Your task to perform on an android device: check out phone information Image 0: 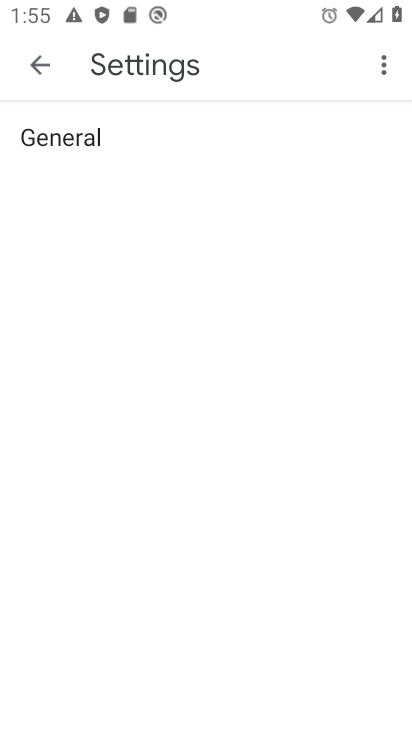
Step 0: press home button
Your task to perform on an android device: check out phone information Image 1: 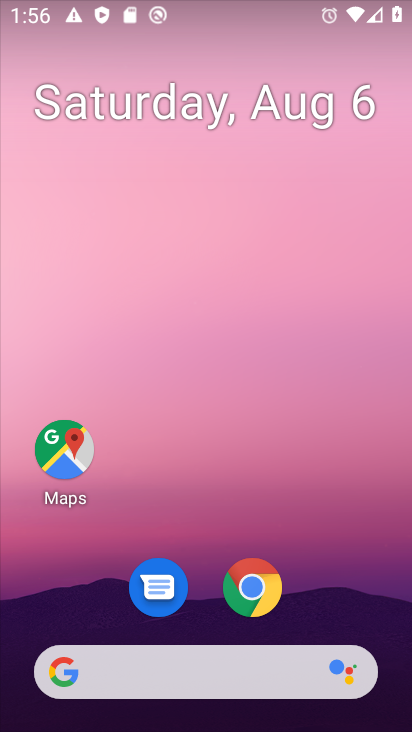
Step 1: drag from (208, 547) to (224, 184)
Your task to perform on an android device: check out phone information Image 2: 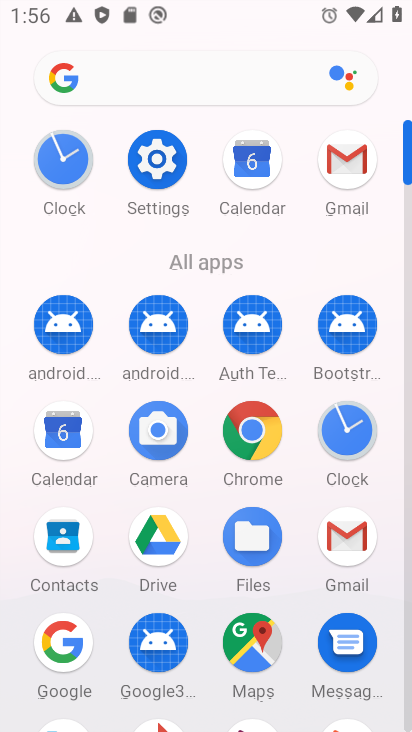
Step 2: click (184, 172)
Your task to perform on an android device: check out phone information Image 3: 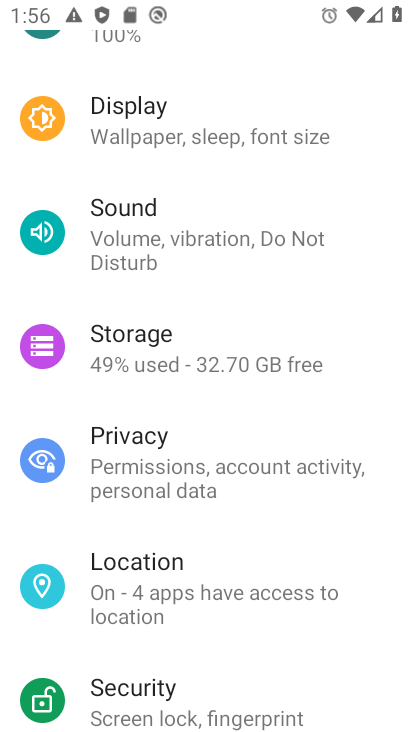
Step 3: drag from (247, 638) to (251, 159)
Your task to perform on an android device: check out phone information Image 4: 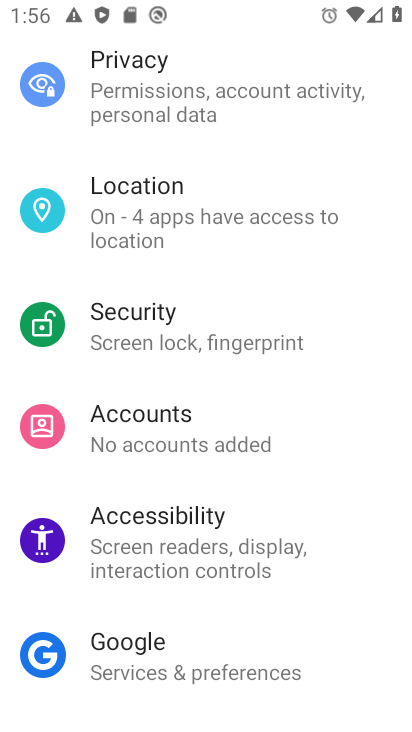
Step 4: drag from (264, 593) to (275, 224)
Your task to perform on an android device: check out phone information Image 5: 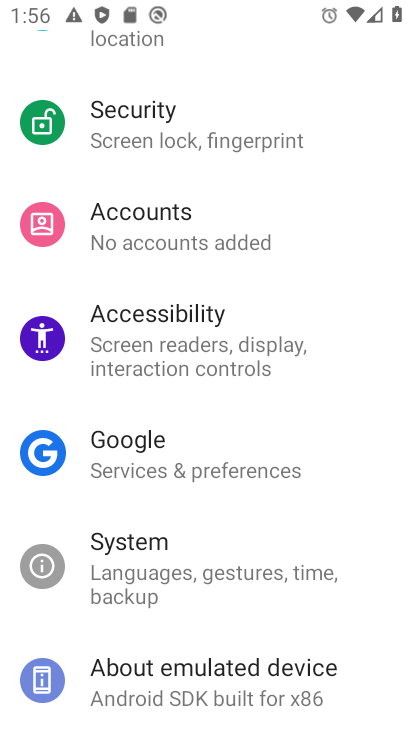
Step 5: click (231, 673)
Your task to perform on an android device: check out phone information Image 6: 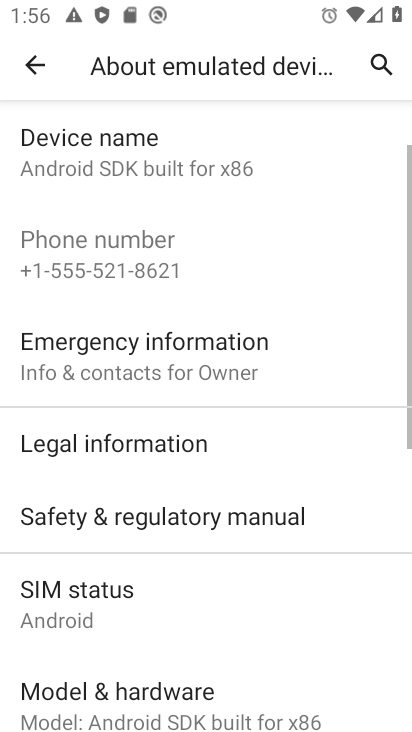
Step 6: task complete